Your task to perform on an android device: Clear the cart on newegg. Search for "panasonic triple a" on newegg, select the first entry, add it to the cart, then select checkout. Image 0: 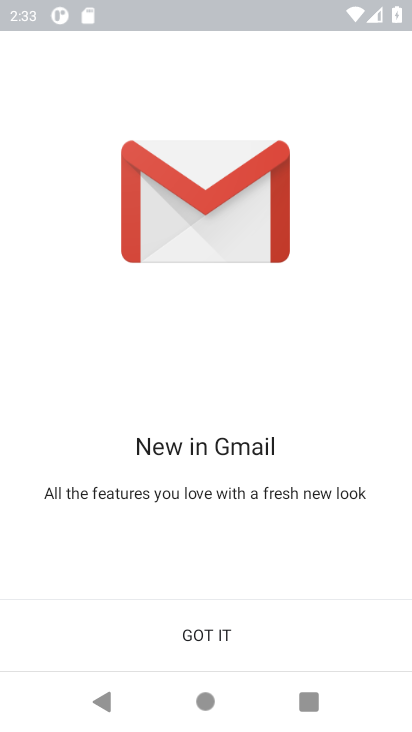
Step 0: press home button
Your task to perform on an android device: Clear the cart on newegg. Search for "panasonic triple a" on newegg, select the first entry, add it to the cart, then select checkout. Image 1: 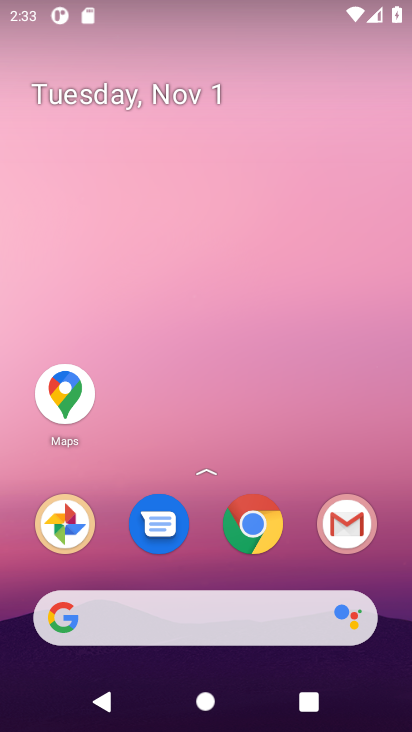
Step 1: click (254, 522)
Your task to perform on an android device: Clear the cart on newegg. Search for "panasonic triple a" on newegg, select the first entry, add it to the cart, then select checkout. Image 2: 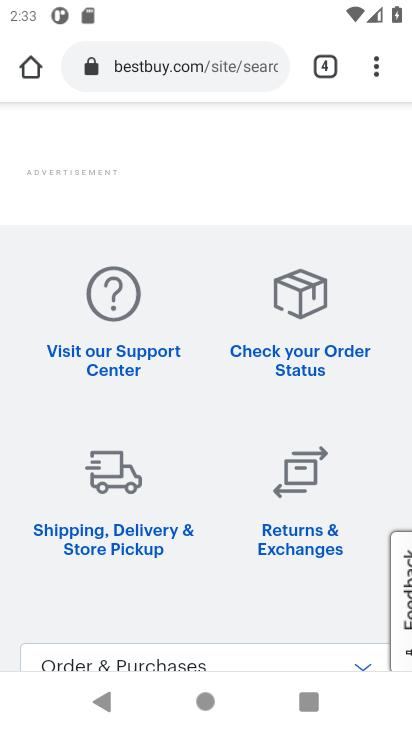
Step 2: click (232, 44)
Your task to perform on an android device: Clear the cart on newegg. Search for "panasonic triple a" on newegg, select the first entry, add it to the cart, then select checkout. Image 3: 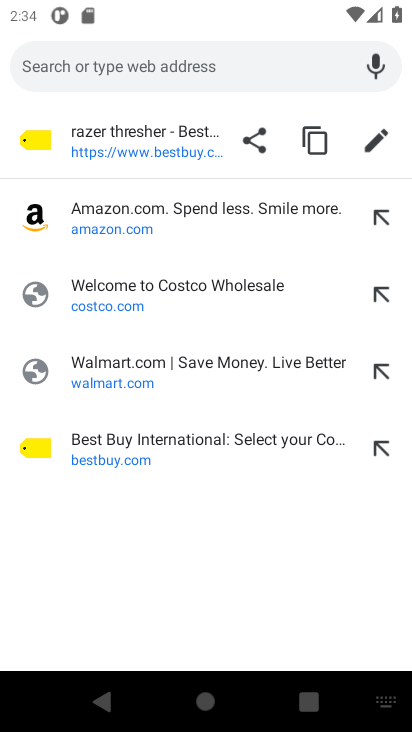
Step 3: type "newegg"
Your task to perform on an android device: Clear the cart on newegg. Search for "panasonic triple a" on newegg, select the first entry, add it to the cart, then select checkout. Image 4: 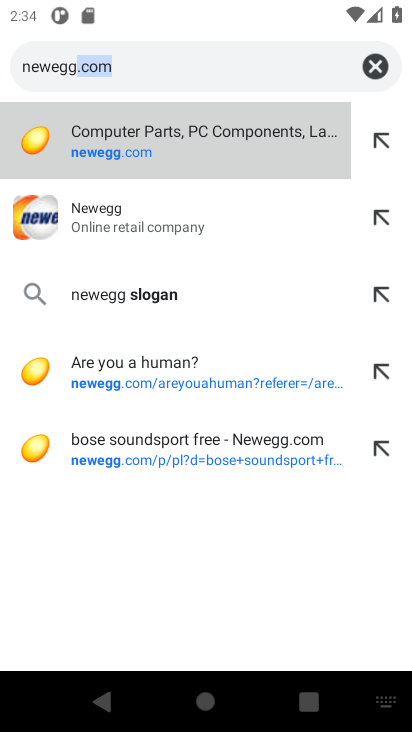
Step 4: click (92, 129)
Your task to perform on an android device: Clear the cart on newegg. Search for "panasonic triple a" on newegg, select the first entry, add it to the cart, then select checkout. Image 5: 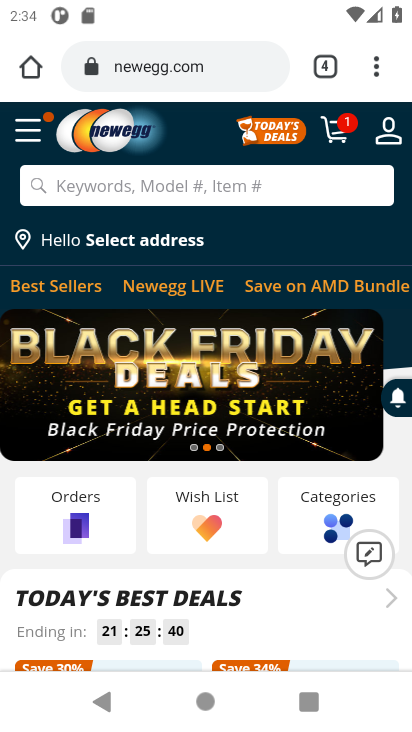
Step 5: click (335, 128)
Your task to perform on an android device: Clear the cart on newegg. Search for "panasonic triple a" on newegg, select the first entry, add it to the cart, then select checkout. Image 6: 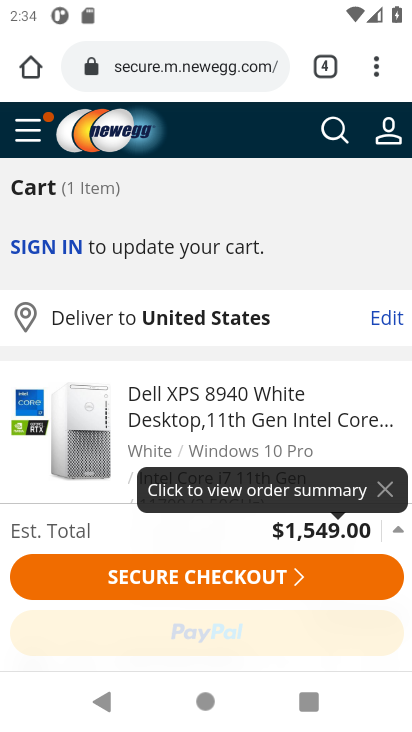
Step 6: drag from (157, 467) to (165, 267)
Your task to perform on an android device: Clear the cart on newegg. Search for "panasonic triple a" on newegg, select the first entry, add it to the cart, then select checkout. Image 7: 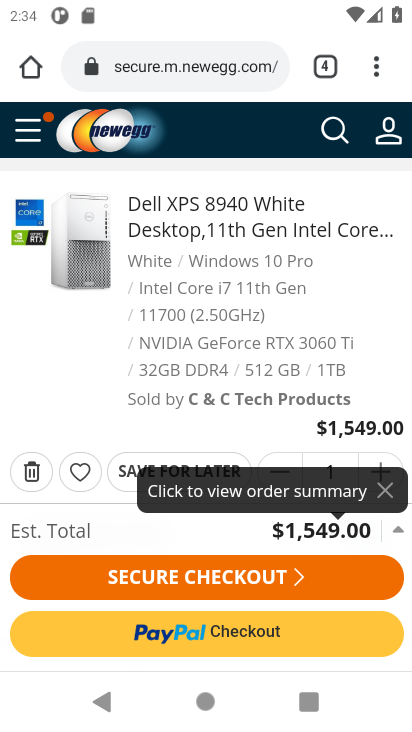
Step 7: drag from (129, 421) to (174, 259)
Your task to perform on an android device: Clear the cart on newegg. Search for "panasonic triple a" on newegg, select the first entry, add it to the cart, then select checkout. Image 8: 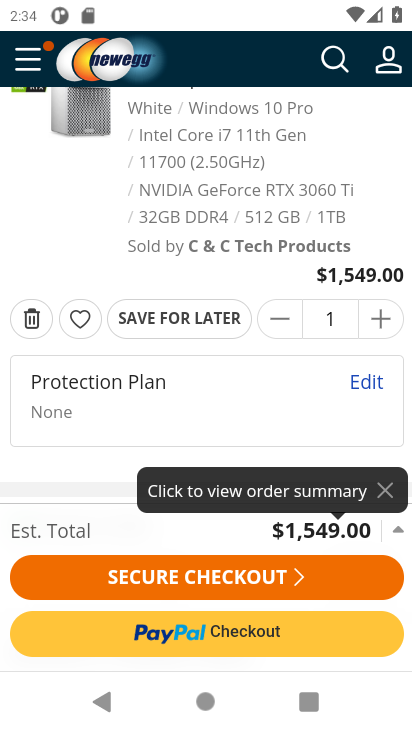
Step 8: click (29, 318)
Your task to perform on an android device: Clear the cart on newegg. Search for "panasonic triple a" on newegg, select the first entry, add it to the cart, then select checkout. Image 9: 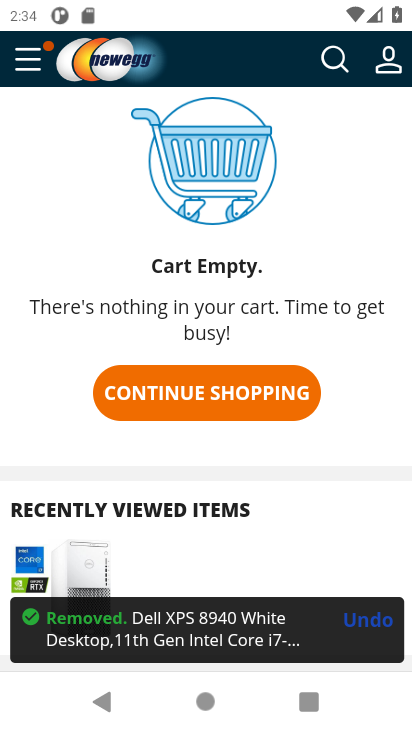
Step 9: click (187, 393)
Your task to perform on an android device: Clear the cart on newegg. Search for "panasonic triple a" on newegg, select the first entry, add it to the cart, then select checkout. Image 10: 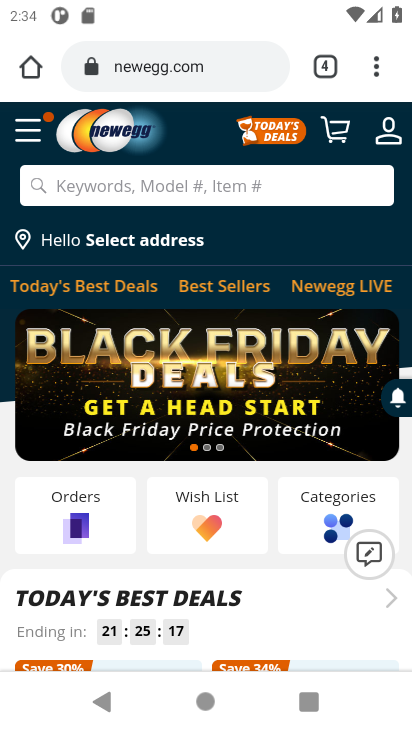
Step 10: click (87, 182)
Your task to perform on an android device: Clear the cart on newegg. Search for "panasonic triple a" on newegg, select the first entry, add it to the cart, then select checkout. Image 11: 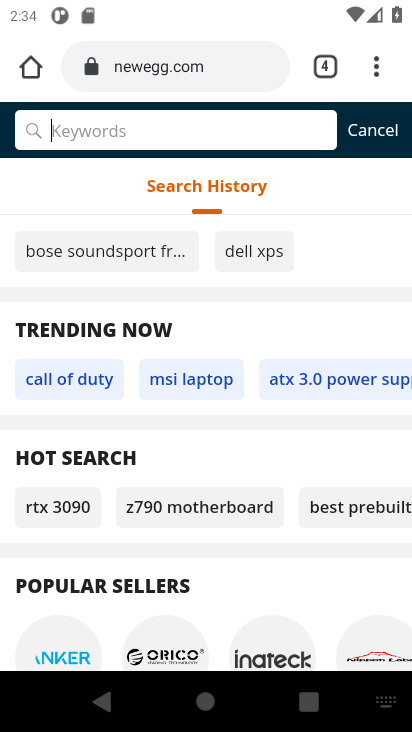
Step 11: type "panasonic triple a"
Your task to perform on an android device: Clear the cart on newegg. Search for "panasonic triple a" on newegg, select the first entry, add it to the cart, then select checkout. Image 12: 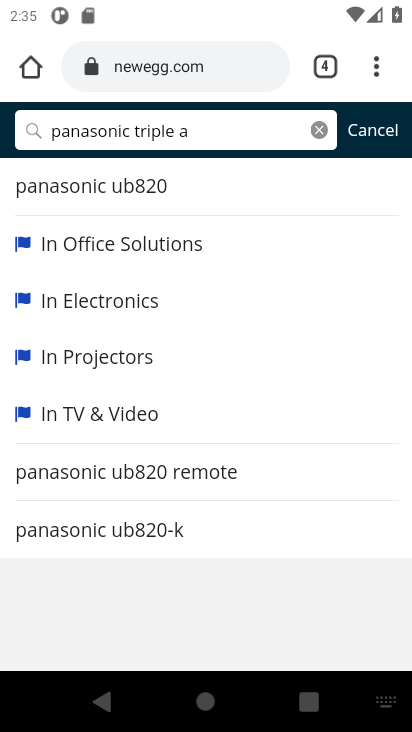
Step 12: click (314, 127)
Your task to perform on an android device: Clear the cart on newegg. Search for "panasonic triple a" on newegg, select the first entry, add it to the cart, then select checkout. Image 13: 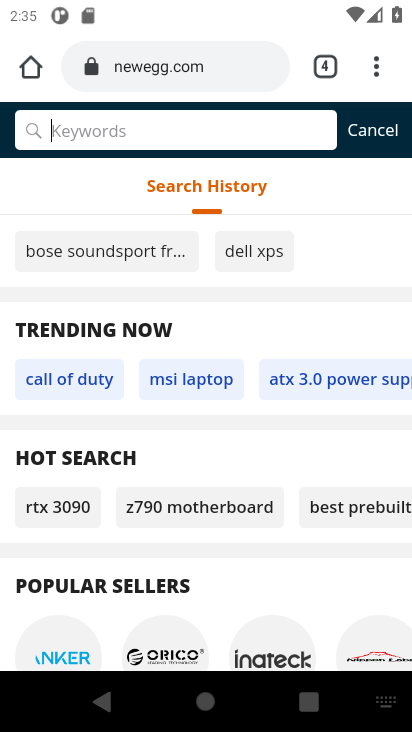
Step 13: type "panasonic aaa"
Your task to perform on an android device: Clear the cart on newegg. Search for "panasonic triple a" on newegg, select the first entry, add it to the cart, then select checkout. Image 14: 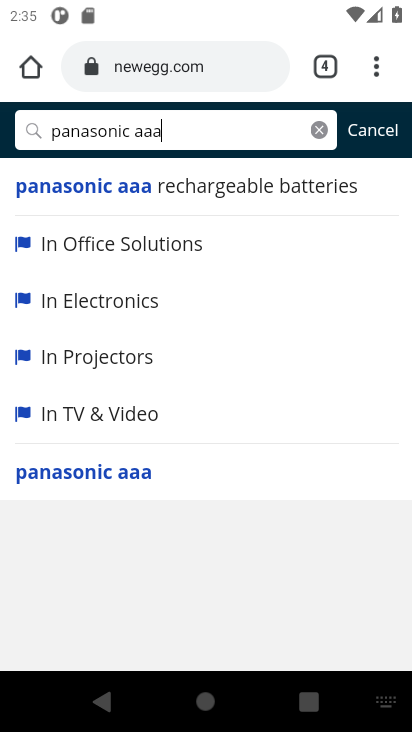
Step 14: click (69, 184)
Your task to perform on an android device: Clear the cart on newegg. Search for "panasonic triple a" on newegg, select the first entry, add it to the cart, then select checkout. Image 15: 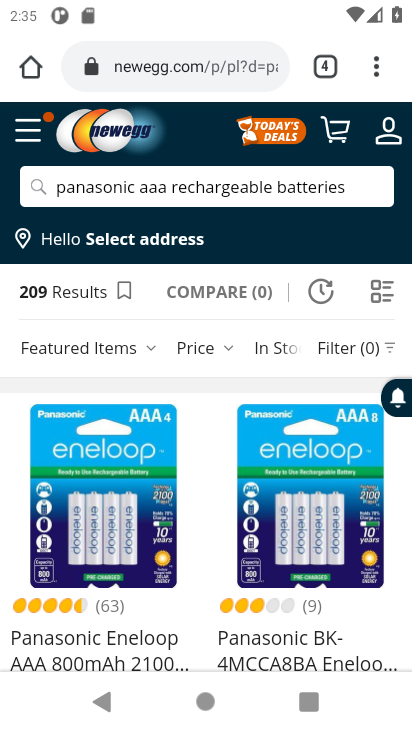
Step 15: drag from (175, 582) to (155, 244)
Your task to perform on an android device: Clear the cart on newegg. Search for "panasonic triple a" on newegg, select the first entry, add it to the cart, then select checkout. Image 16: 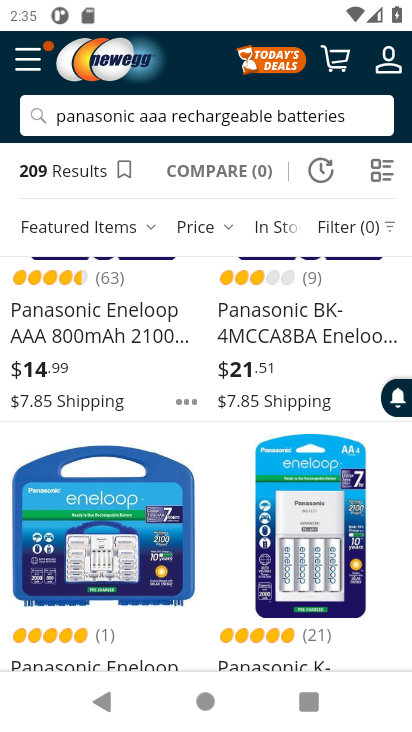
Step 16: click (69, 316)
Your task to perform on an android device: Clear the cart on newegg. Search for "panasonic triple a" on newegg, select the first entry, add it to the cart, then select checkout. Image 17: 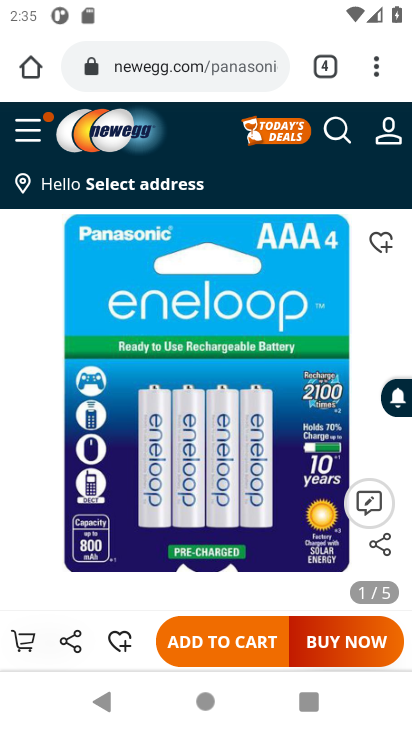
Step 17: click (217, 642)
Your task to perform on an android device: Clear the cart on newegg. Search for "panasonic triple a" on newegg, select the first entry, add it to the cart, then select checkout. Image 18: 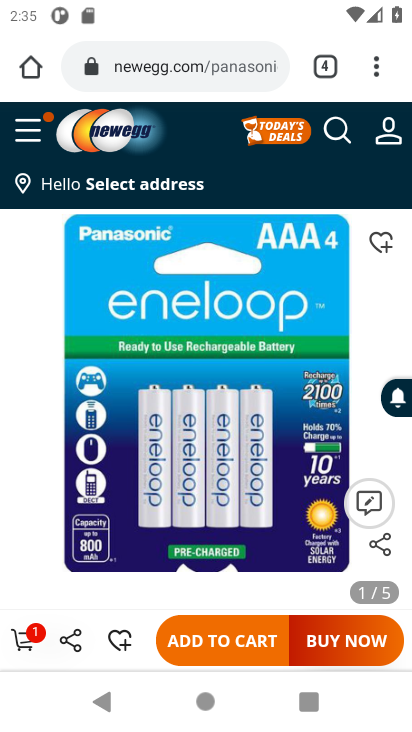
Step 18: click (21, 634)
Your task to perform on an android device: Clear the cart on newegg. Search for "panasonic triple a" on newegg, select the first entry, add it to the cart, then select checkout. Image 19: 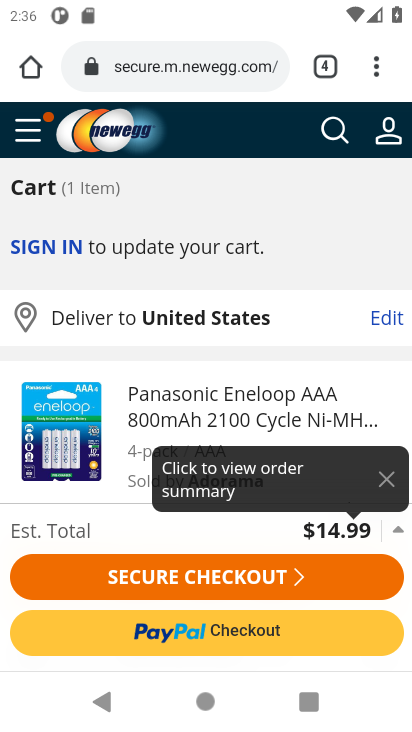
Step 19: click (200, 574)
Your task to perform on an android device: Clear the cart on newegg. Search for "panasonic triple a" on newegg, select the first entry, add it to the cart, then select checkout. Image 20: 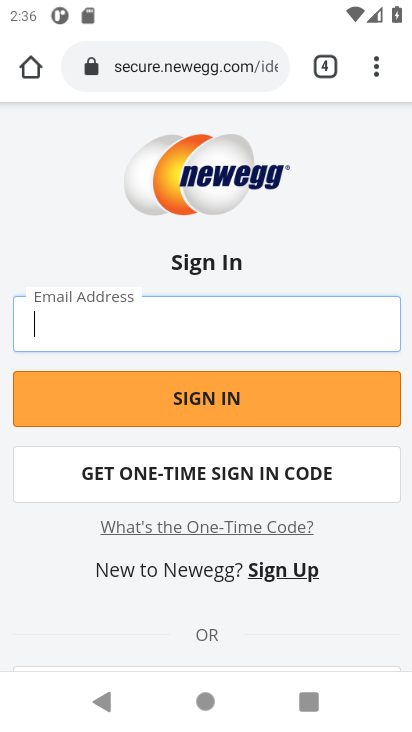
Step 20: task complete